Your task to perform on an android device: toggle location history Image 0: 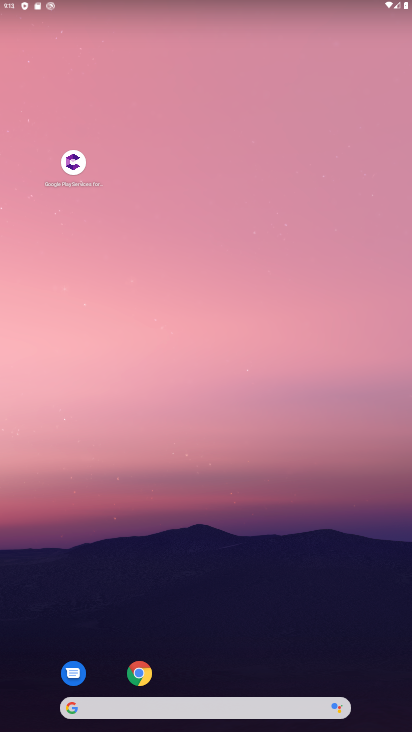
Step 0: drag from (361, 585) to (340, 32)
Your task to perform on an android device: toggle location history Image 1: 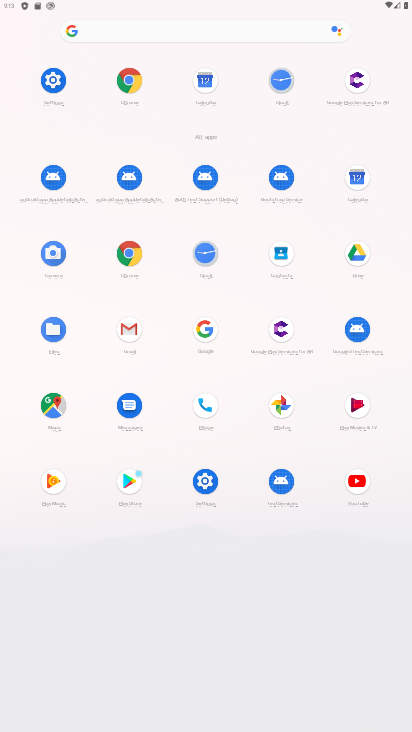
Step 1: click (210, 478)
Your task to perform on an android device: toggle location history Image 2: 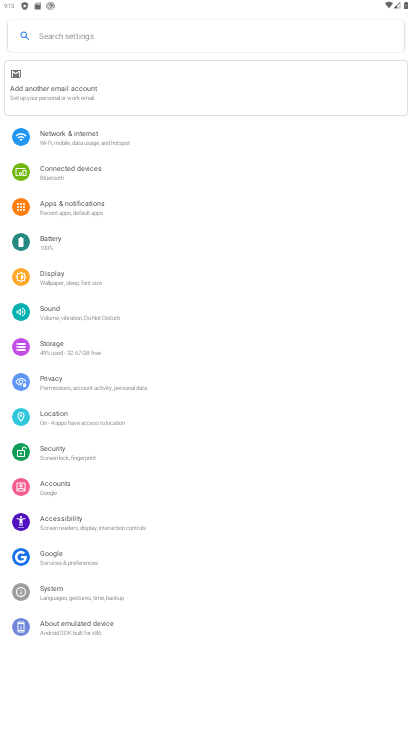
Step 2: click (130, 421)
Your task to perform on an android device: toggle location history Image 3: 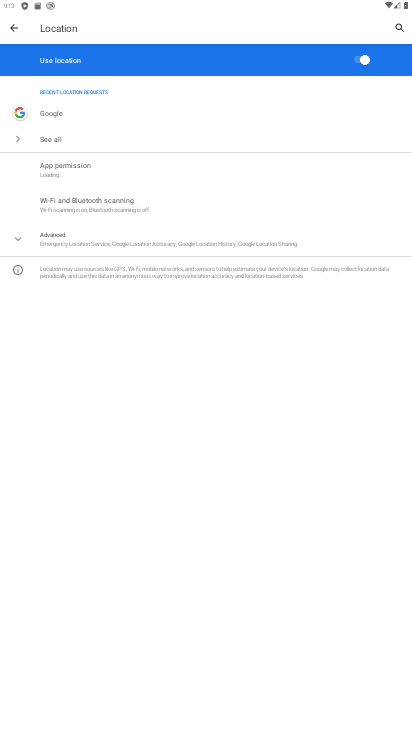
Step 3: click (185, 241)
Your task to perform on an android device: toggle location history Image 4: 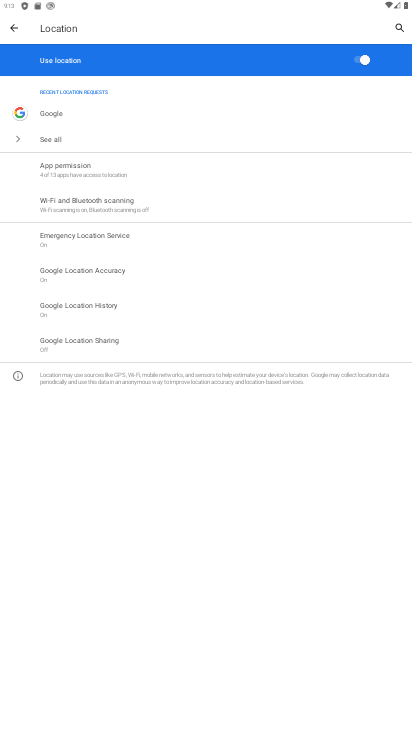
Step 4: click (105, 310)
Your task to perform on an android device: toggle location history Image 5: 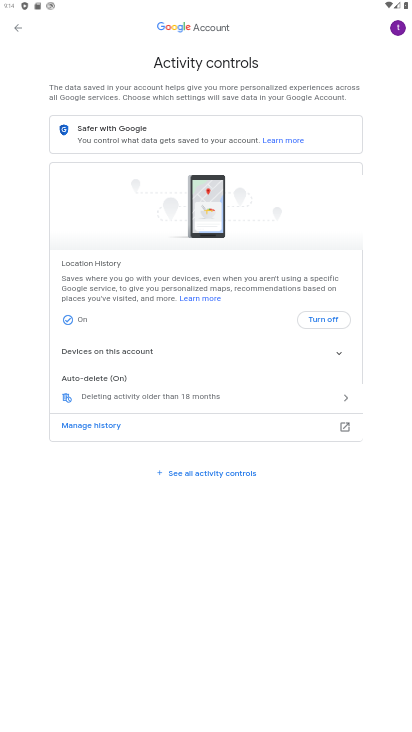
Step 5: click (324, 322)
Your task to perform on an android device: toggle location history Image 6: 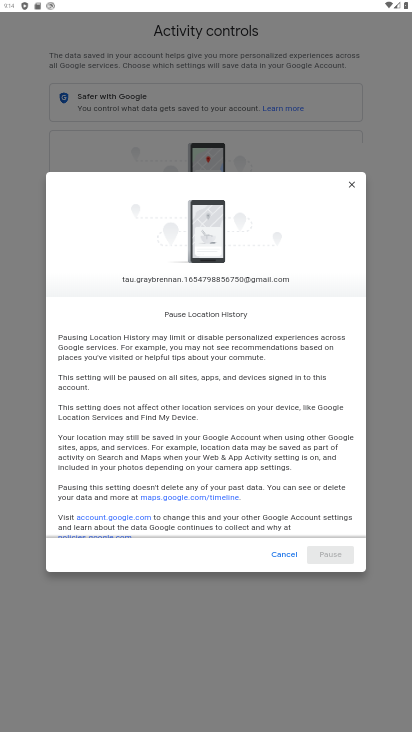
Step 6: click (323, 556)
Your task to perform on an android device: toggle location history Image 7: 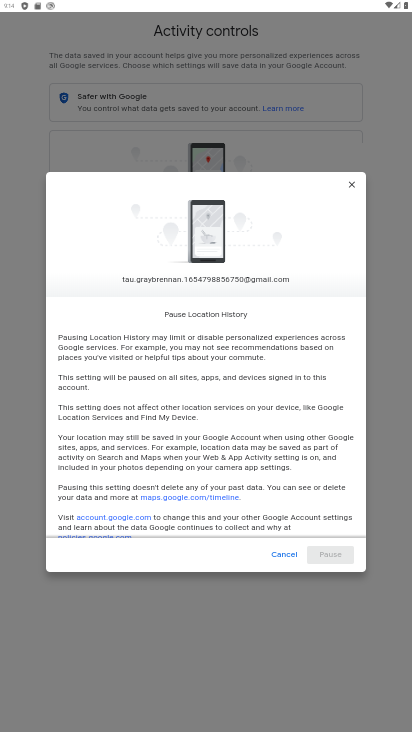
Step 7: drag from (311, 479) to (313, 349)
Your task to perform on an android device: toggle location history Image 8: 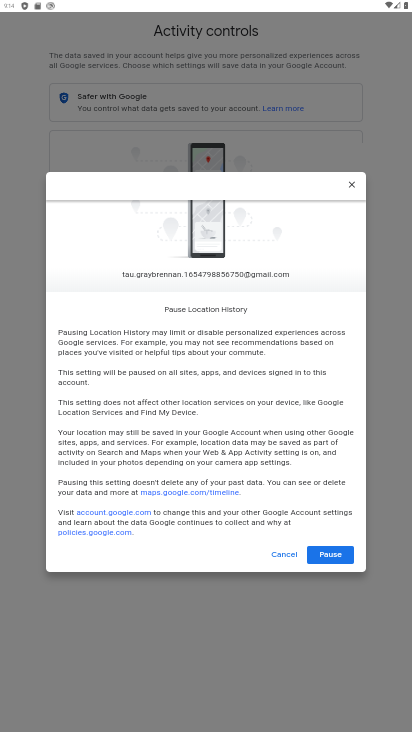
Step 8: click (332, 554)
Your task to perform on an android device: toggle location history Image 9: 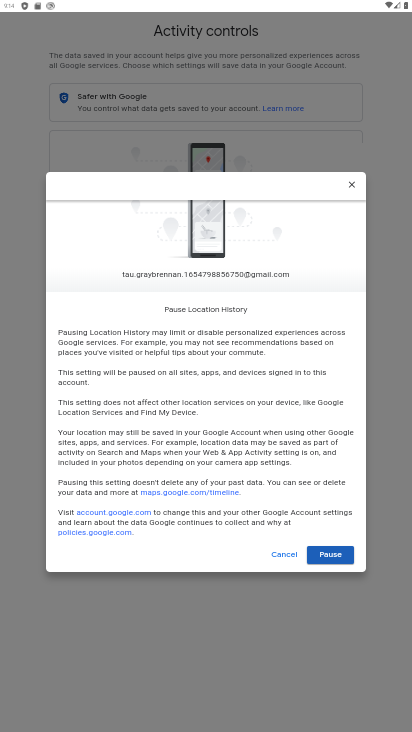
Step 9: click (340, 555)
Your task to perform on an android device: toggle location history Image 10: 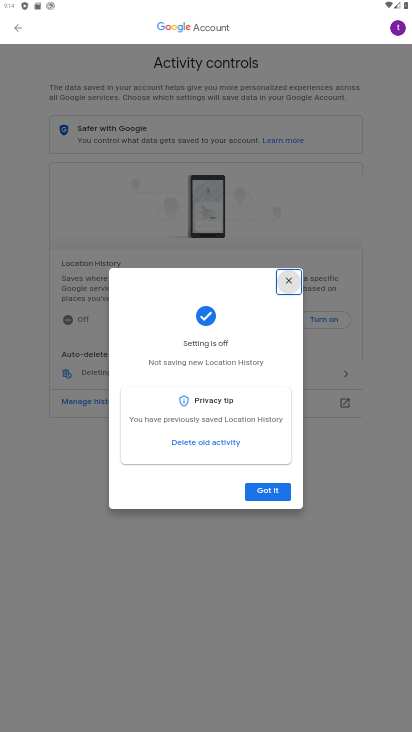
Step 10: task complete